Your task to perform on an android device: turn off location history Image 0: 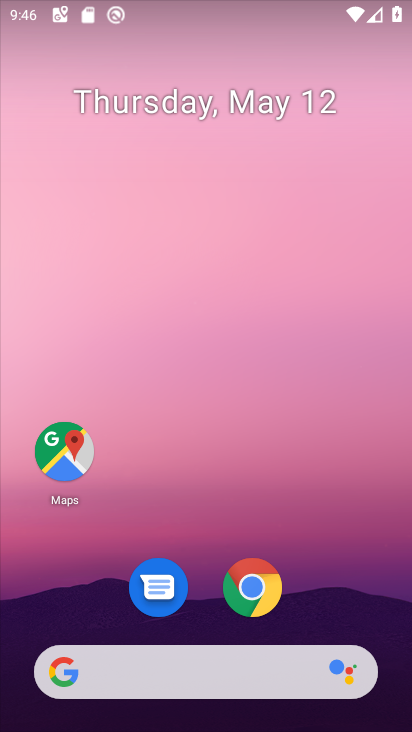
Step 0: drag from (386, 645) to (217, 7)
Your task to perform on an android device: turn off location history Image 1: 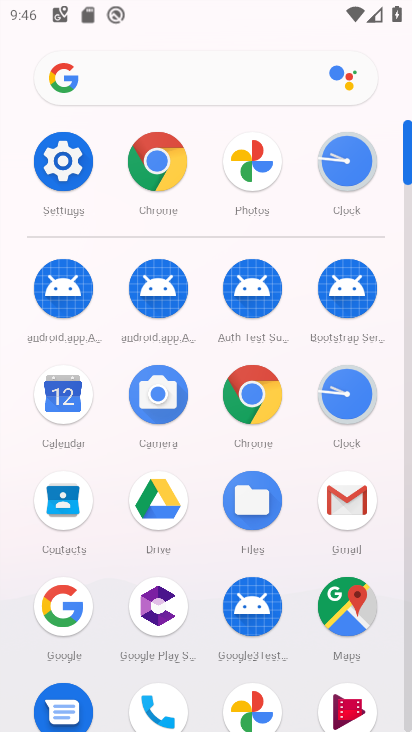
Step 1: click (74, 187)
Your task to perform on an android device: turn off location history Image 2: 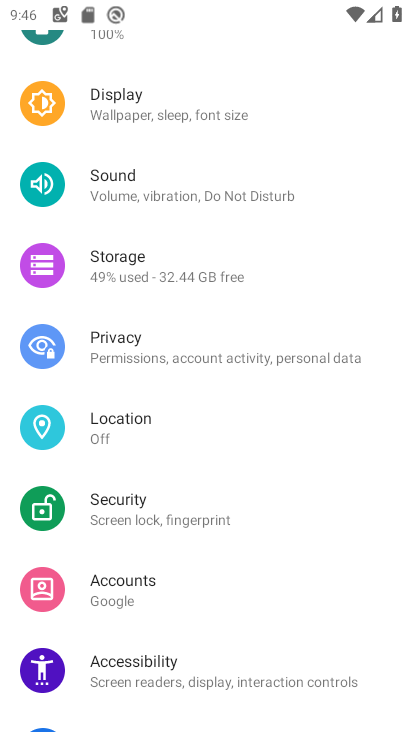
Step 2: drag from (139, 627) to (130, 248)
Your task to perform on an android device: turn off location history Image 3: 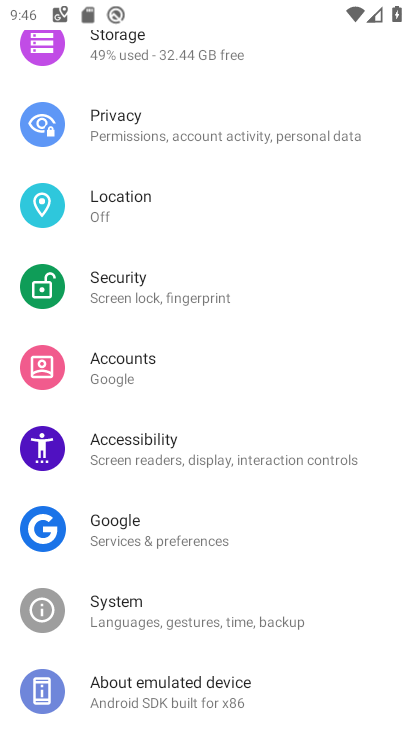
Step 3: click (126, 191)
Your task to perform on an android device: turn off location history Image 4: 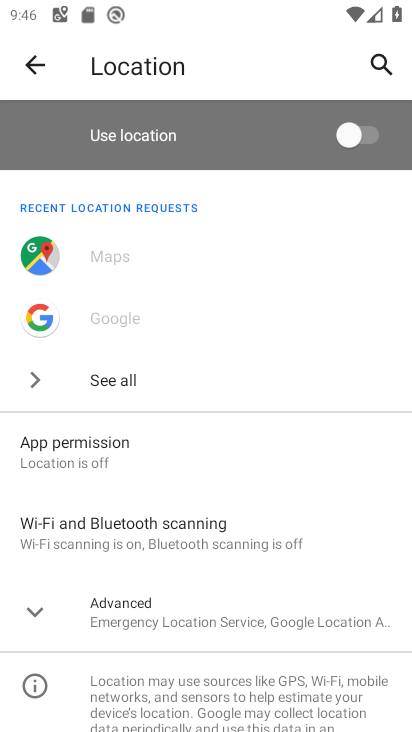
Step 4: click (75, 605)
Your task to perform on an android device: turn off location history Image 5: 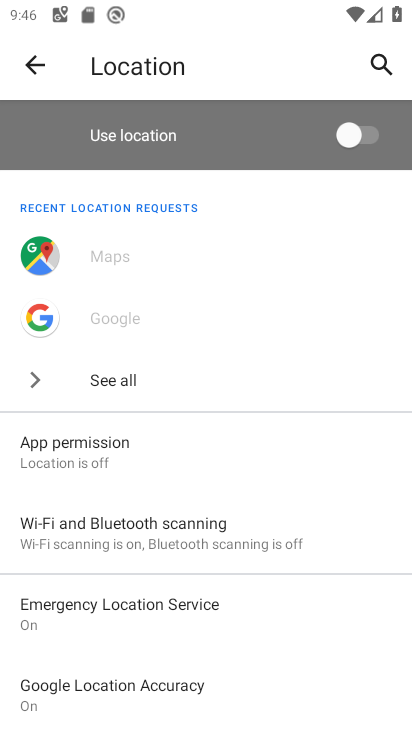
Step 5: drag from (195, 701) to (213, 405)
Your task to perform on an android device: turn off location history Image 6: 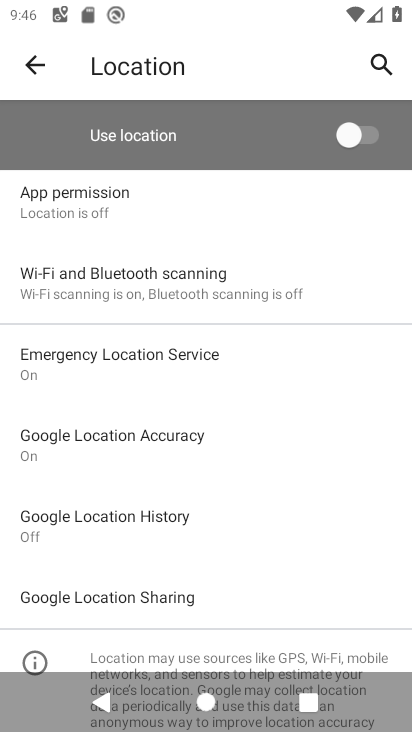
Step 6: click (150, 537)
Your task to perform on an android device: turn off location history Image 7: 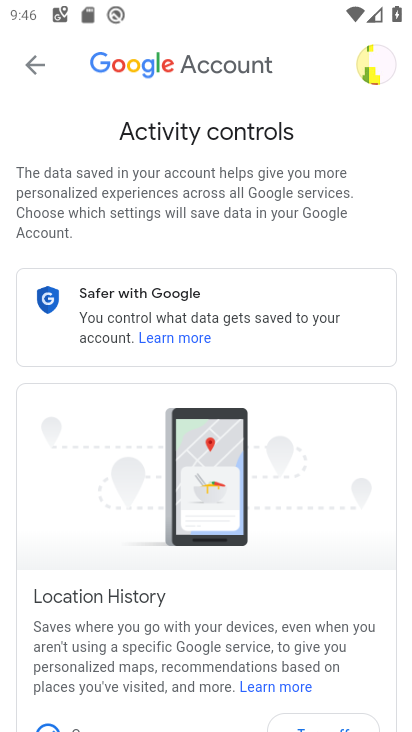
Step 7: task complete